Your task to perform on an android device: find which apps use the phone's location Image 0: 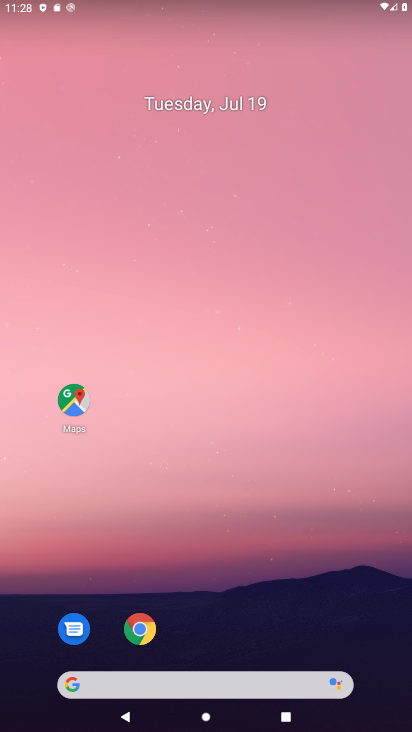
Step 0: drag from (284, 628) to (313, 113)
Your task to perform on an android device: find which apps use the phone's location Image 1: 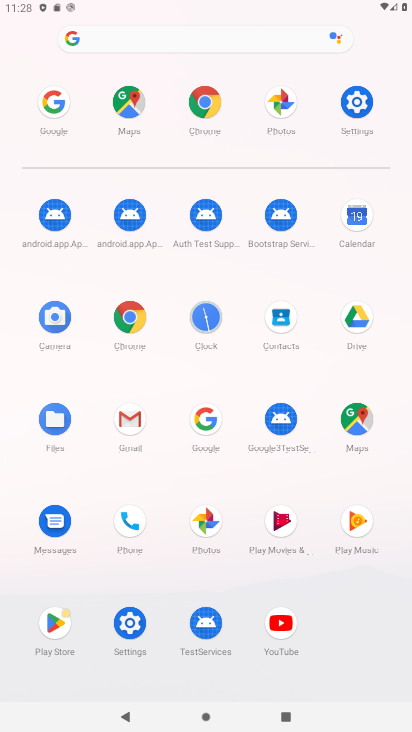
Step 1: click (135, 621)
Your task to perform on an android device: find which apps use the phone's location Image 2: 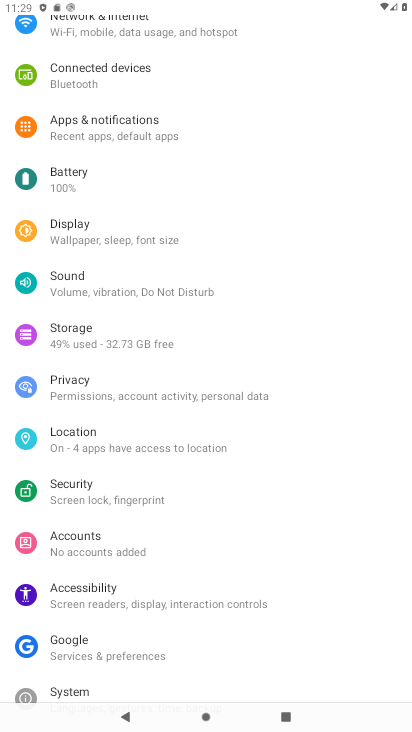
Step 2: drag from (316, 249) to (326, 388)
Your task to perform on an android device: find which apps use the phone's location Image 3: 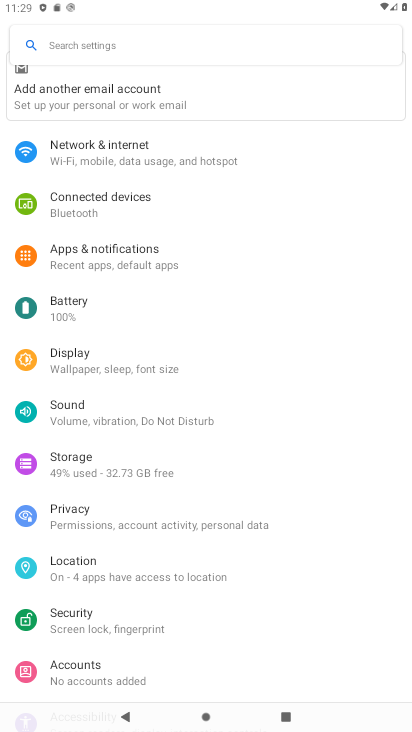
Step 3: drag from (337, 265) to (341, 412)
Your task to perform on an android device: find which apps use the phone's location Image 4: 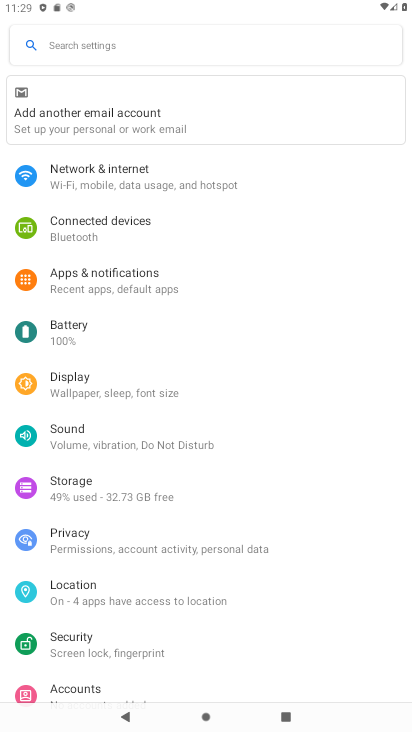
Step 4: click (232, 594)
Your task to perform on an android device: find which apps use the phone's location Image 5: 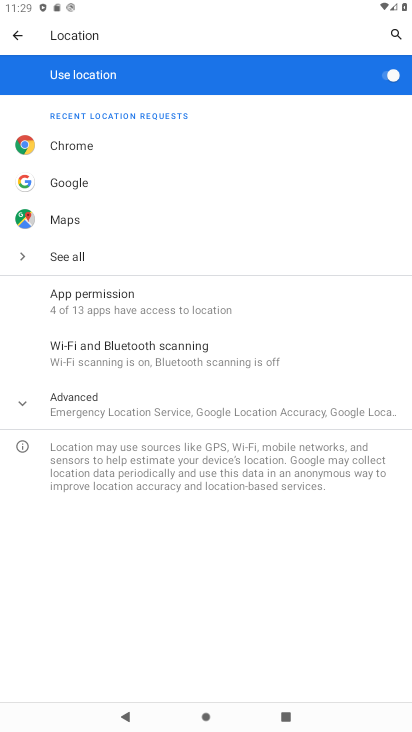
Step 5: click (125, 308)
Your task to perform on an android device: find which apps use the phone's location Image 6: 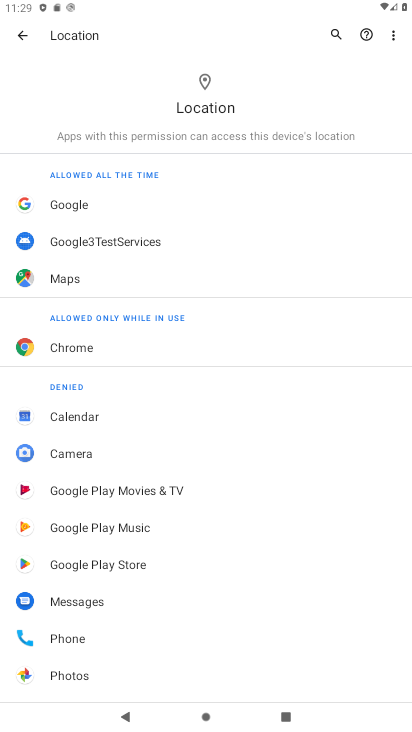
Step 6: click (84, 687)
Your task to perform on an android device: find which apps use the phone's location Image 7: 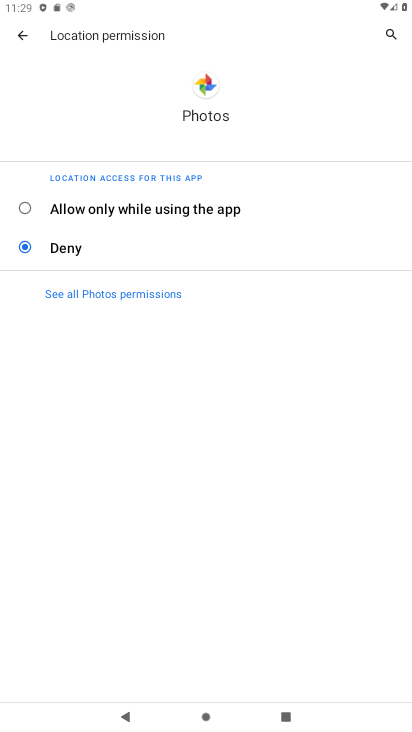
Step 7: click (157, 205)
Your task to perform on an android device: find which apps use the phone's location Image 8: 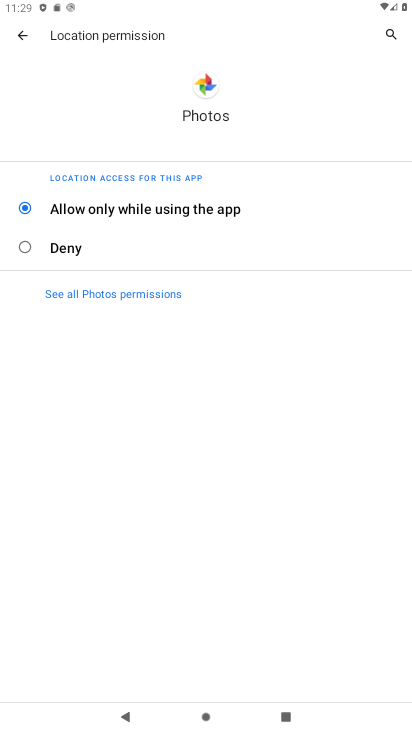
Step 8: task complete